Your task to perform on an android device: turn on javascript in the chrome app Image 0: 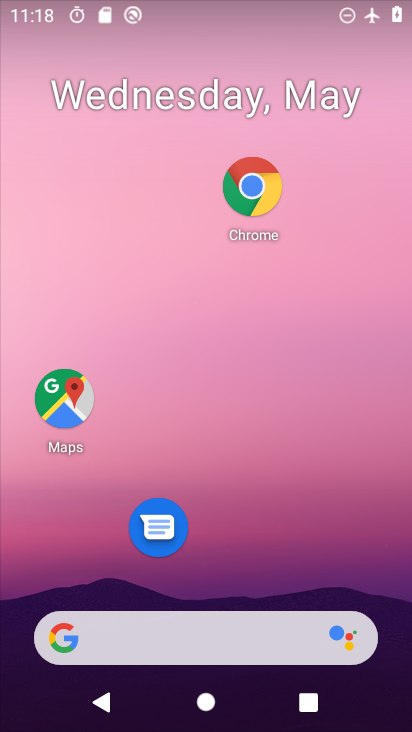
Step 0: drag from (321, 627) to (407, 702)
Your task to perform on an android device: turn on javascript in the chrome app Image 1: 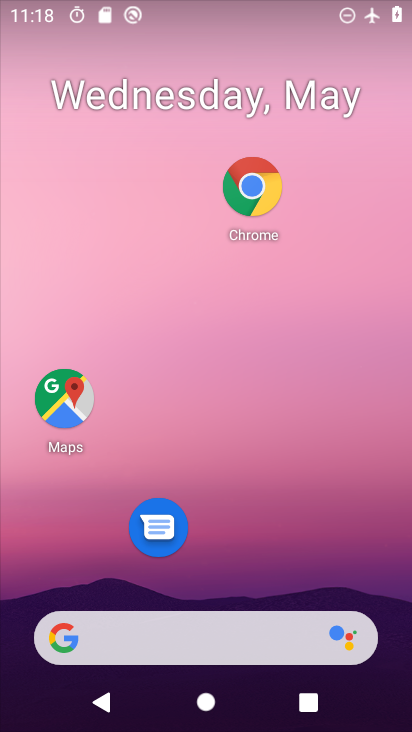
Step 1: click (288, 218)
Your task to perform on an android device: turn on javascript in the chrome app Image 2: 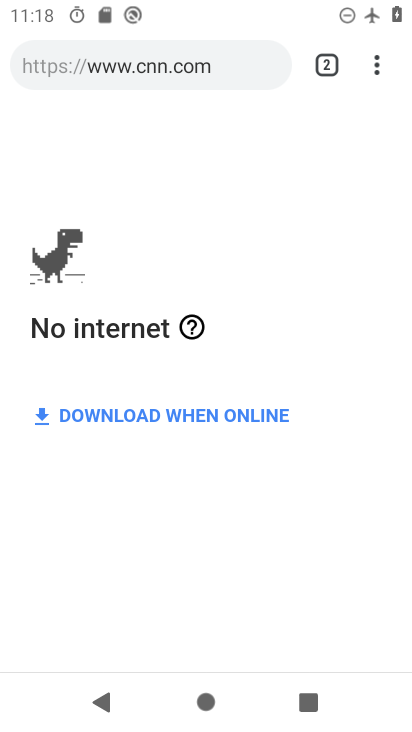
Step 2: click (377, 60)
Your task to perform on an android device: turn on javascript in the chrome app Image 3: 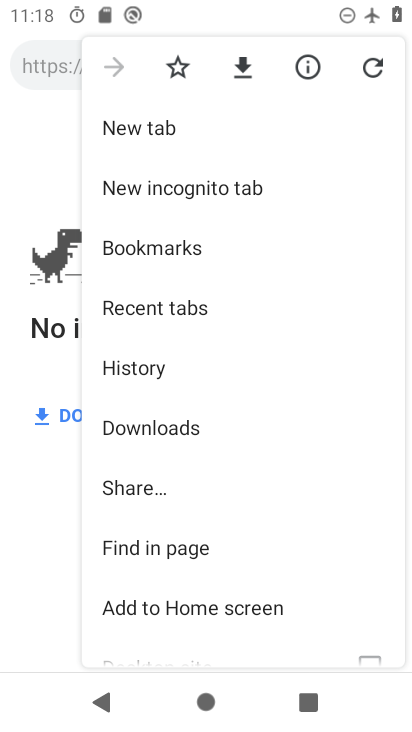
Step 3: drag from (128, 477) to (227, 238)
Your task to perform on an android device: turn on javascript in the chrome app Image 4: 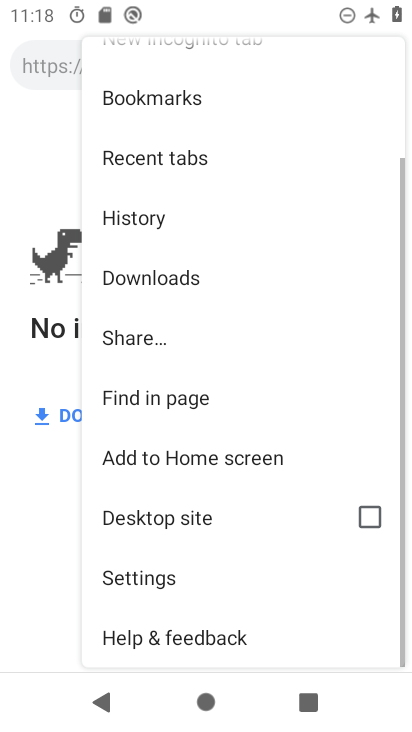
Step 4: drag from (244, 472) to (316, 87)
Your task to perform on an android device: turn on javascript in the chrome app Image 5: 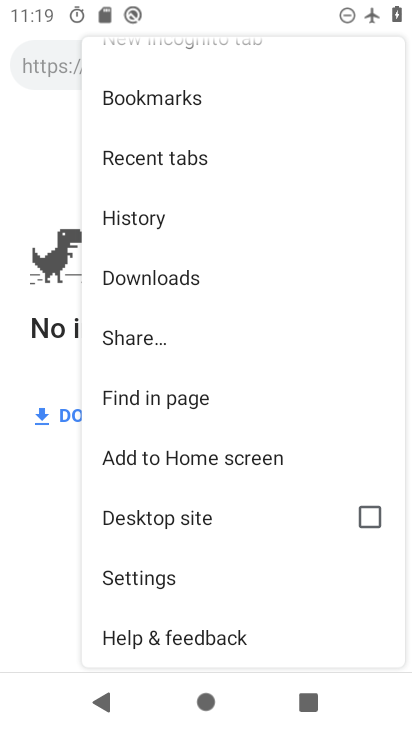
Step 5: click (269, 578)
Your task to perform on an android device: turn on javascript in the chrome app Image 6: 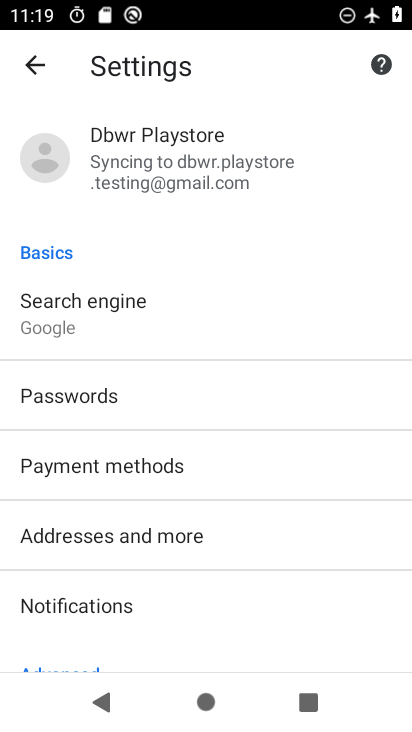
Step 6: drag from (208, 536) to (223, 394)
Your task to perform on an android device: turn on javascript in the chrome app Image 7: 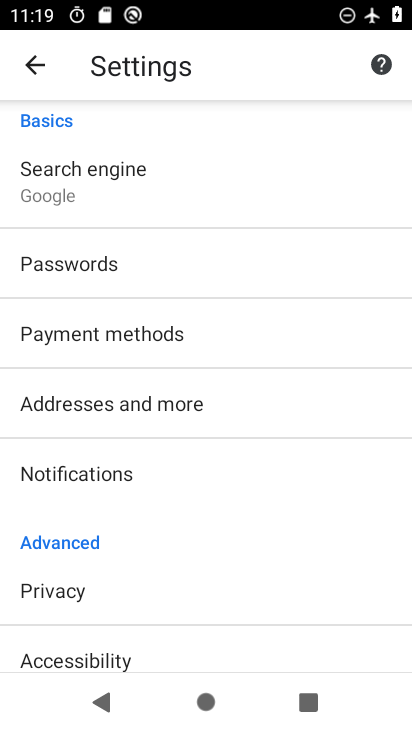
Step 7: drag from (131, 589) to (216, 313)
Your task to perform on an android device: turn on javascript in the chrome app Image 8: 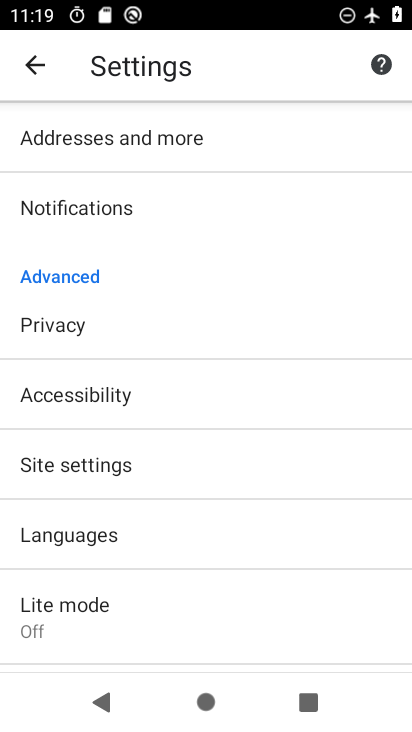
Step 8: click (68, 458)
Your task to perform on an android device: turn on javascript in the chrome app Image 9: 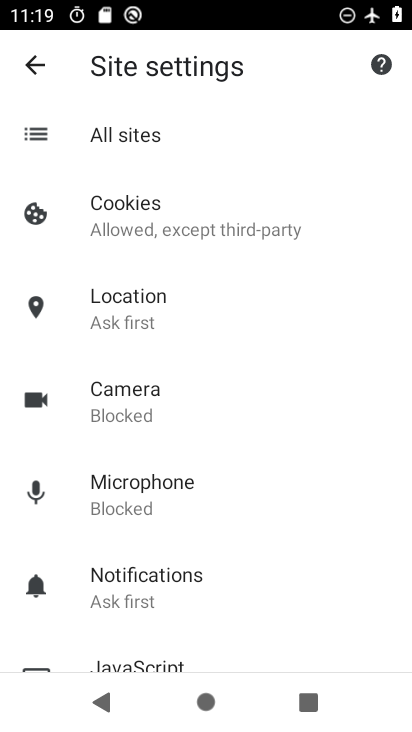
Step 9: drag from (163, 540) to (176, 265)
Your task to perform on an android device: turn on javascript in the chrome app Image 10: 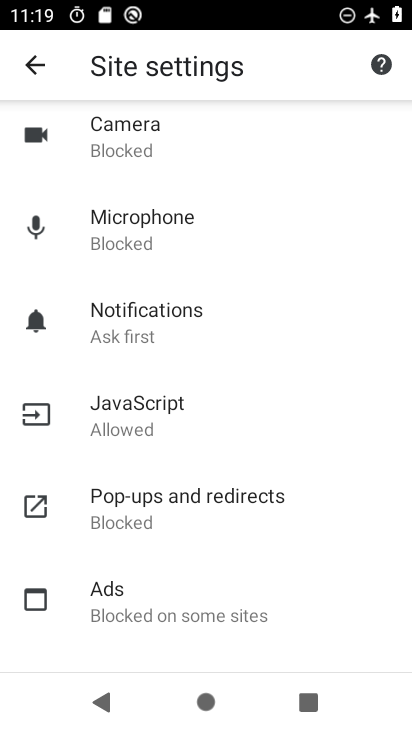
Step 10: click (177, 413)
Your task to perform on an android device: turn on javascript in the chrome app Image 11: 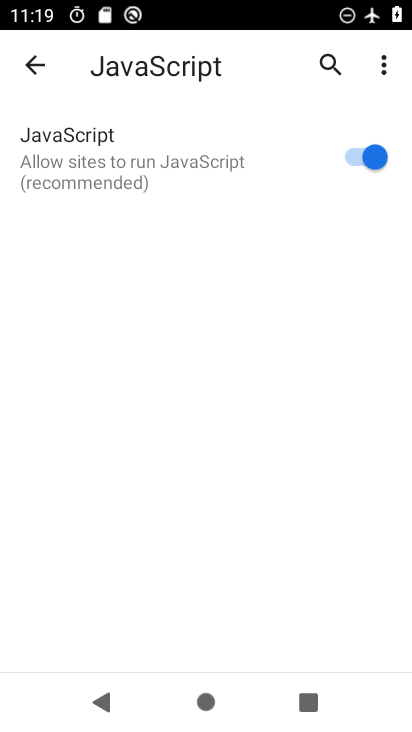
Step 11: task complete